Your task to perform on an android device: turn vacation reply on in the gmail app Image 0: 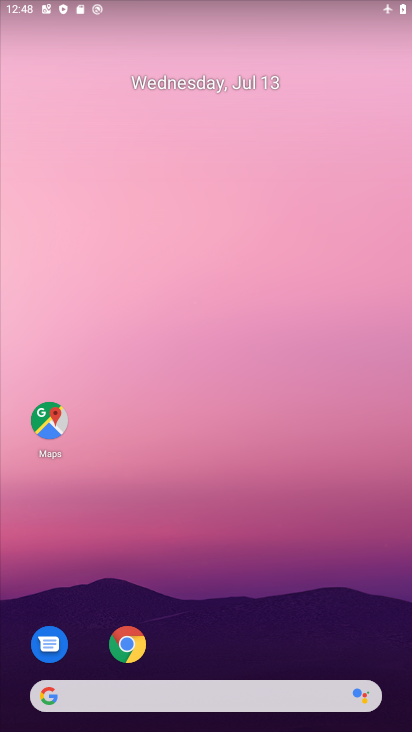
Step 0: drag from (304, 624) to (198, 145)
Your task to perform on an android device: turn vacation reply on in the gmail app Image 1: 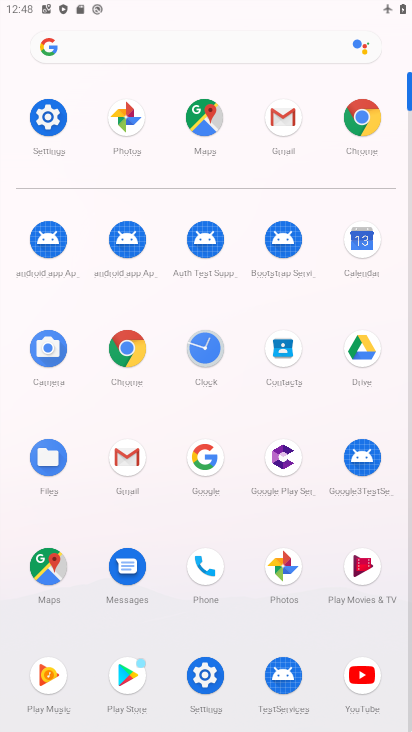
Step 1: click (290, 117)
Your task to perform on an android device: turn vacation reply on in the gmail app Image 2: 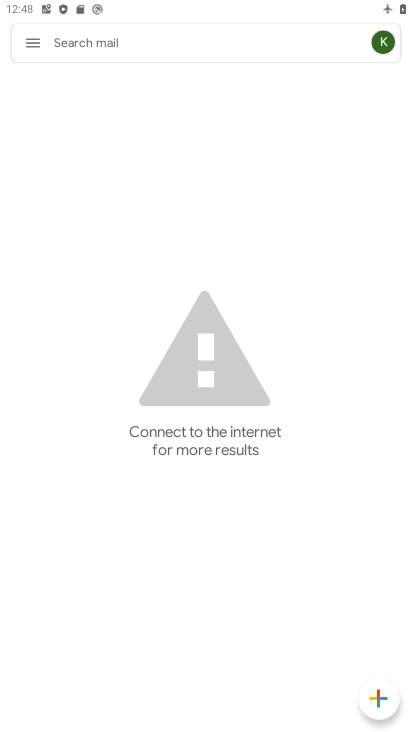
Step 2: click (32, 42)
Your task to perform on an android device: turn vacation reply on in the gmail app Image 3: 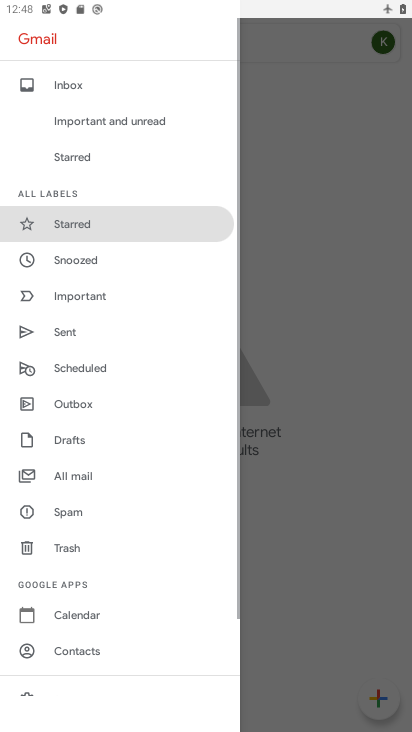
Step 3: drag from (96, 663) to (87, 204)
Your task to perform on an android device: turn vacation reply on in the gmail app Image 4: 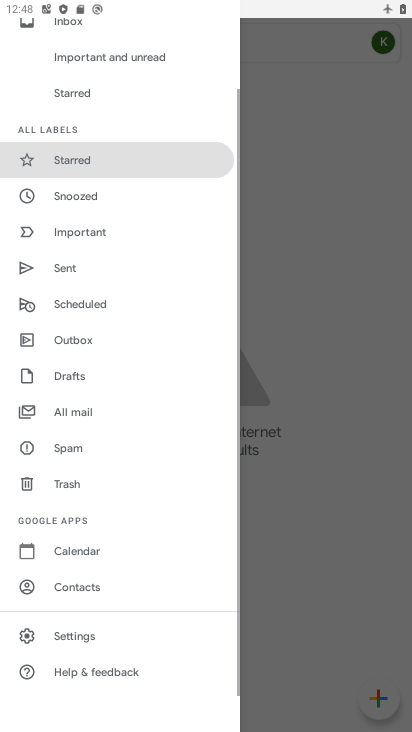
Step 4: click (81, 636)
Your task to perform on an android device: turn vacation reply on in the gmail app Image 5: 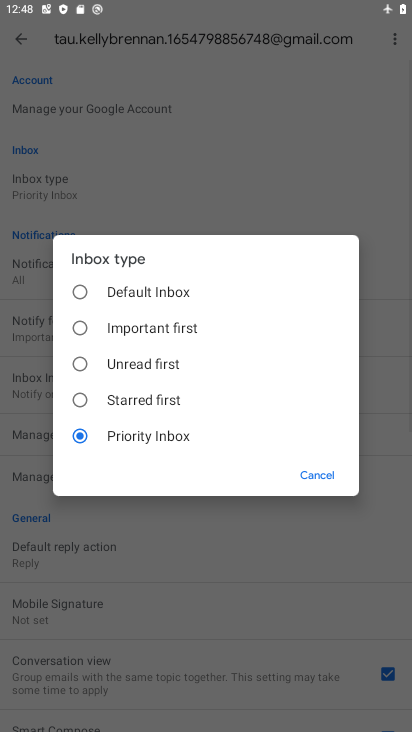
Step 5: click (328, 476)
Your task to perform on an android device: turn vacation reply on in the gmail app Image 6: 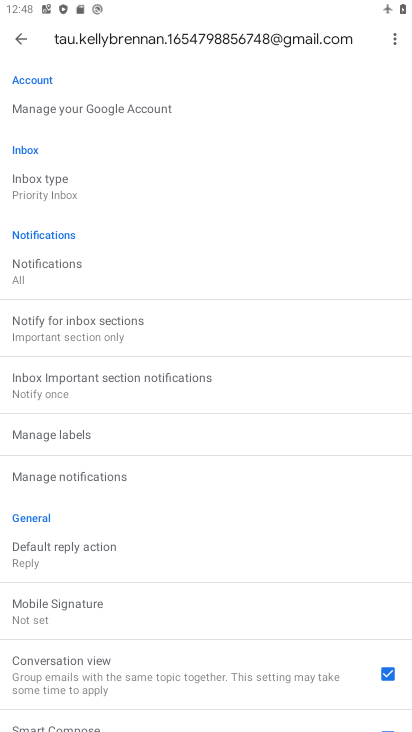
Step 6: drag from (206, 630) to (236, 138)
Your task to perform on an android device: turn vacation reply on in the gmail app Image 7: 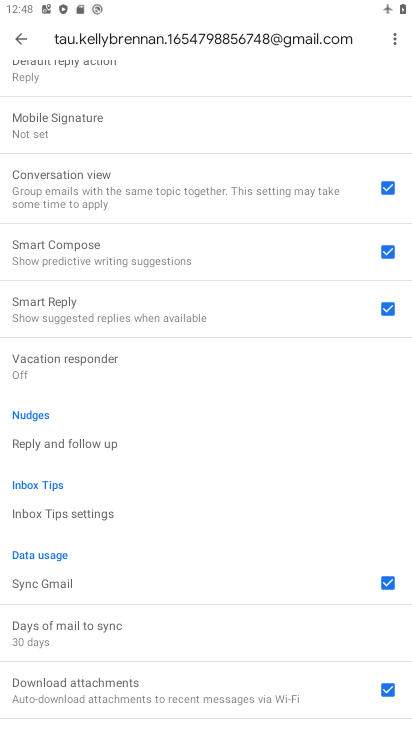
Step 7: drag from (203, 541) to (236, 158)
Your task to perform on an android device: turn vacation reply on in the gmail app Image 8: 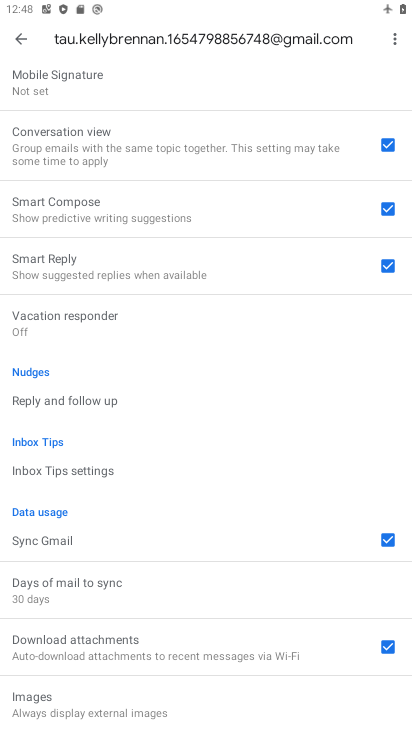
Step 8: click (71, 324)
Your task to perform on an android device: turn vacation reply on in the gmail app Image 9: 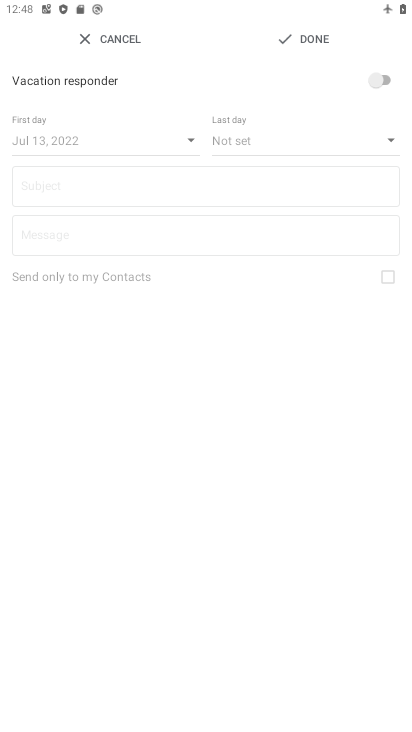
Step 9: click (383, 73)
Your task to perform on an android device: turn vacation reply on in the gmail app Image 10: 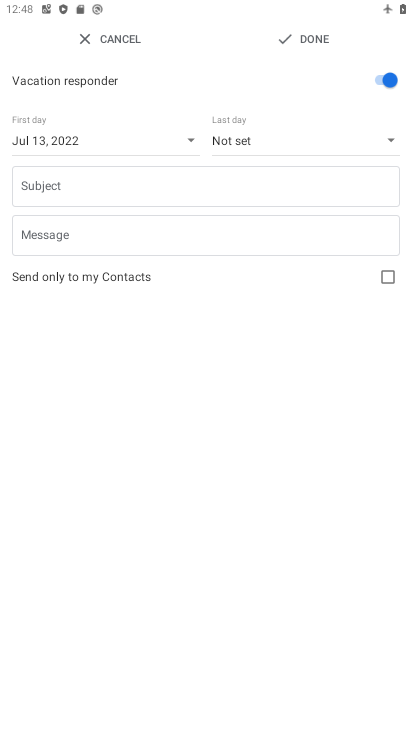
Step 10: task complete